Your task to perform on an android device: Turn on the flashlight Image 0: 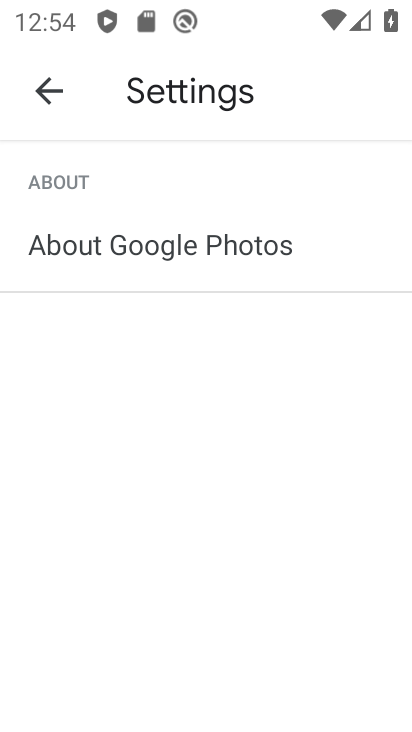
Step 0: drag from (264, 7) to (300, 456)
Your task to perform on an android device: Turn on the flashlight Image 1: 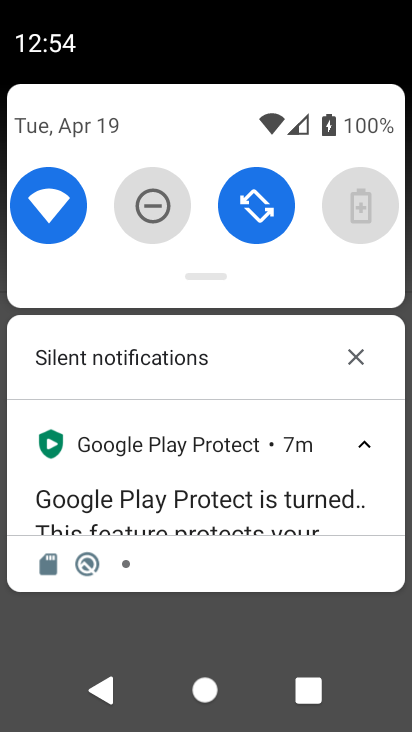
Step 1: drag from (310, 233) to (307, 631)
Your task to perform on an android device: Turn on the flashlight Image 2: 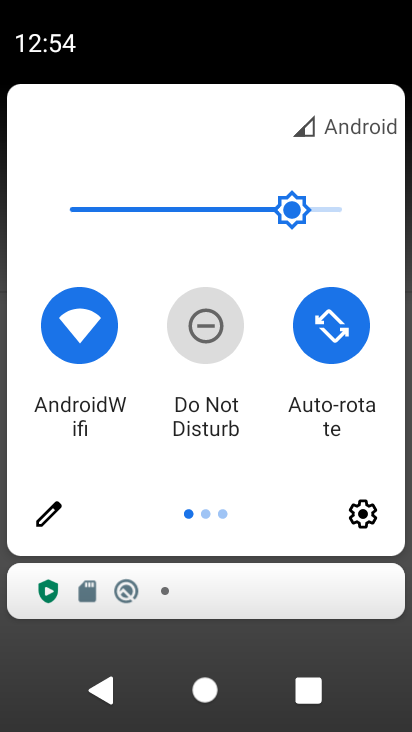
Step 2: drag from (390, 414) to (12, 362)
Your task to perform on an android device: Turn on the flashlight Image 3: 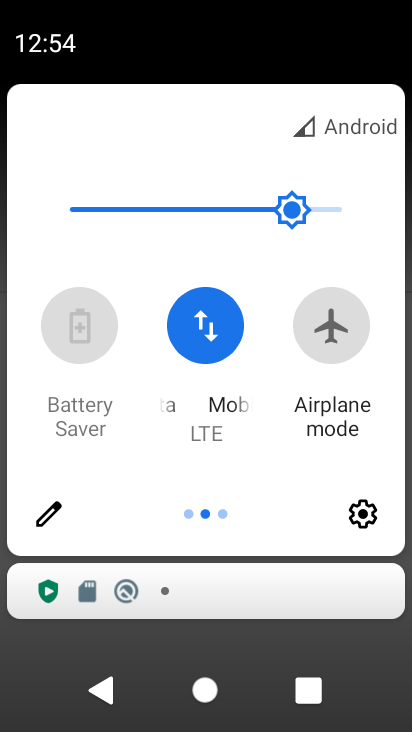
Step 3: drag from (400, 387) to (140, 348)
Your task to perform on an android device: Turn on the flashlight Image 4: 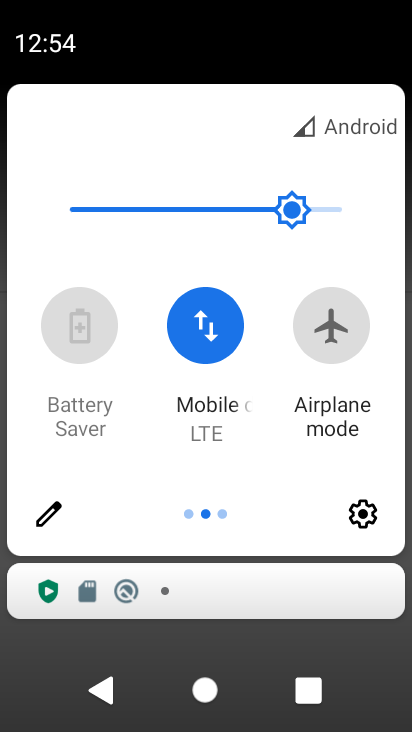
Step 4: drag from (355, 456) to (1, 461)
Your task to perform on an android device: Turn on the flashlight Image 5: 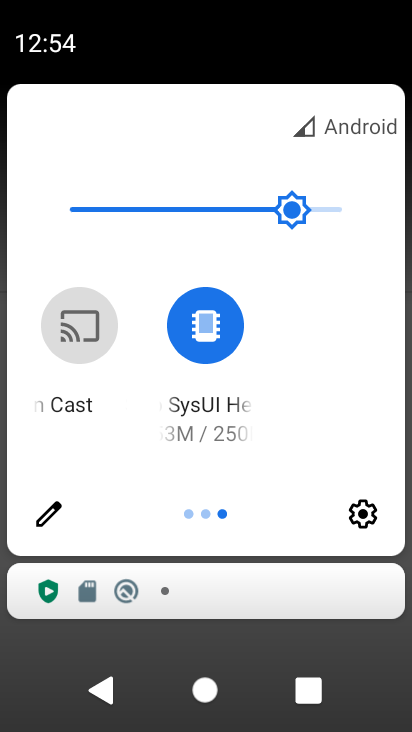
Step 5: click (50, 513)
Your task to perform on an android device: Turn on the flashlight Image 6: 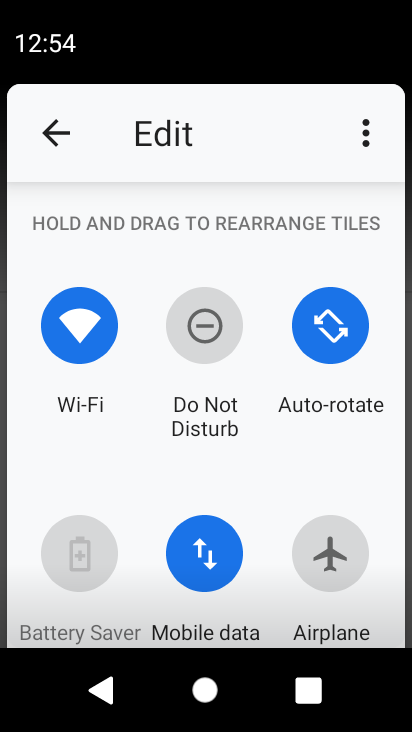
Step 6: task complete